Your task to perform on an android device: Show me popular games on the Play Store Image 0: 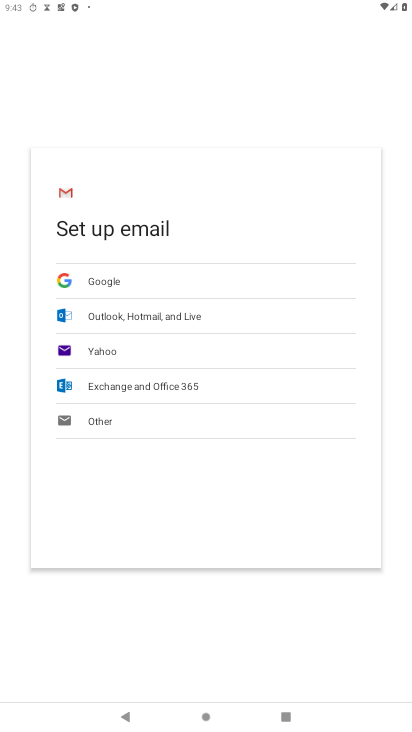
Step 0: press home button
Your task to perform on an android device: Show me popular games on the Play Store Image 1: 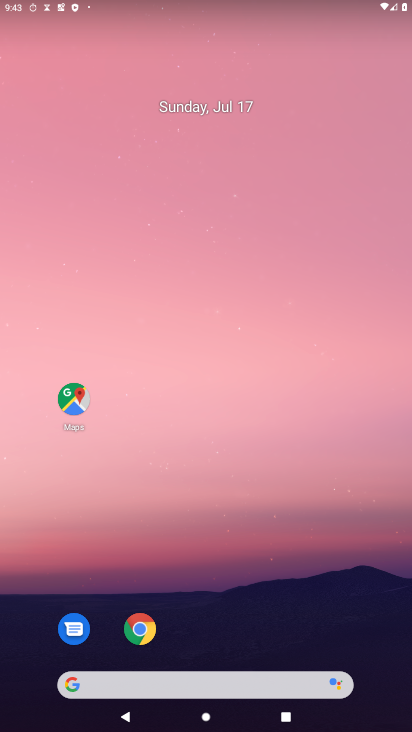
Step 1: drag from (240, 721) to (300, 105)
Your task to perform on an android device: Show me popular games on the Play Store Image 2: 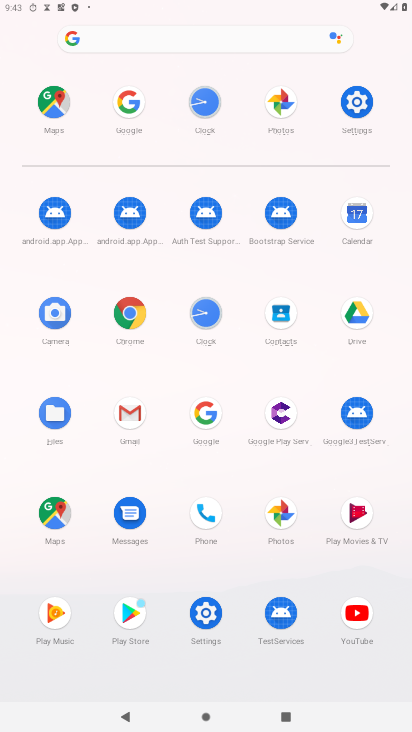
Step 2: click (130, 608)
Your task to perform on an android device: Show me popular games on the Play Store Image 3: 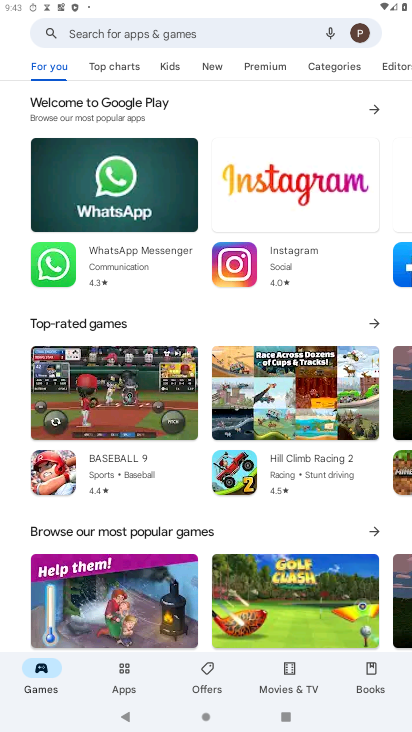
Step 3: click (375, 530)
Your task to perform on an android device: Show me popular games on the Play Store Image 4: 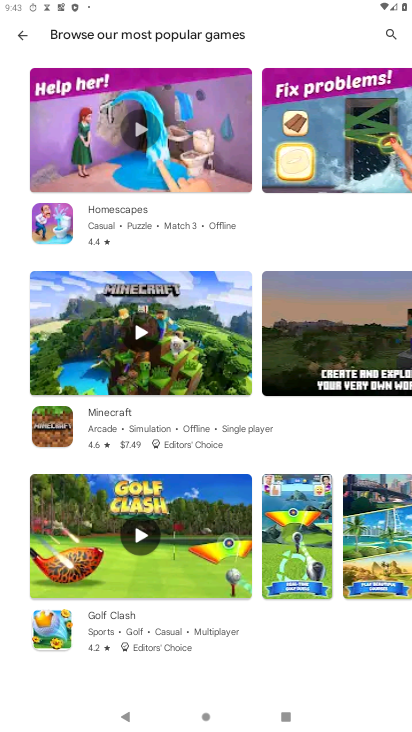
Step 4: task complete